Your task to perform on an android device: Go to Amazon Image 0: 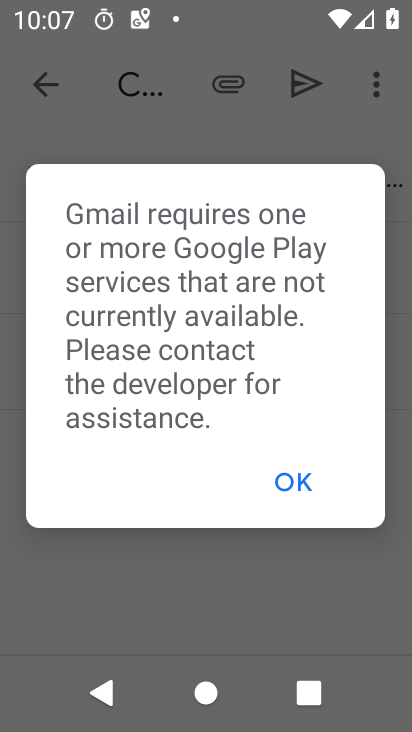
Step 0: press home button
Your task to perform on an android device: Go to Amazon Image 1: 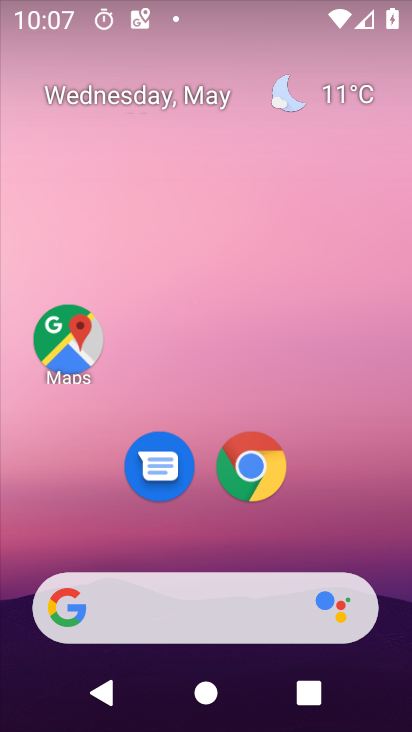
Step 1: click (258, 490)
Your task to perform on an android device: Go to Amazon Image 2: 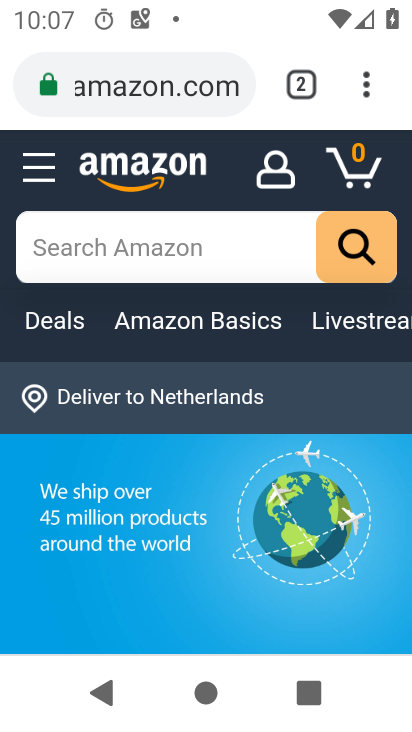
Step 2: task complete